Your task to perform on an android device: What is the recent news? Image 0: 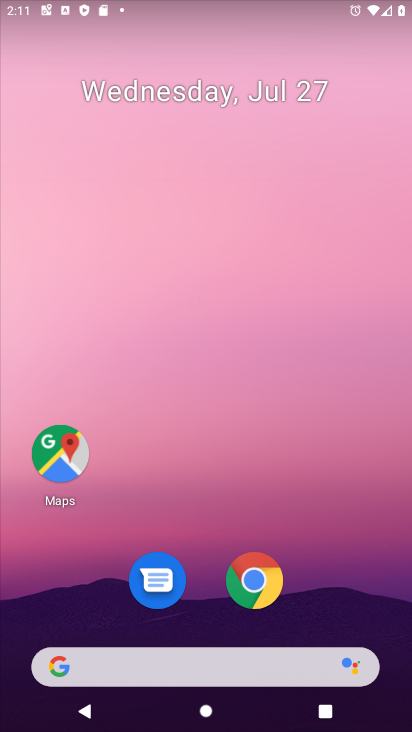
Step 0: drag from (257, 682) to (283, 151)
Your task to perform on an android device: What is the recent news? Image 1: 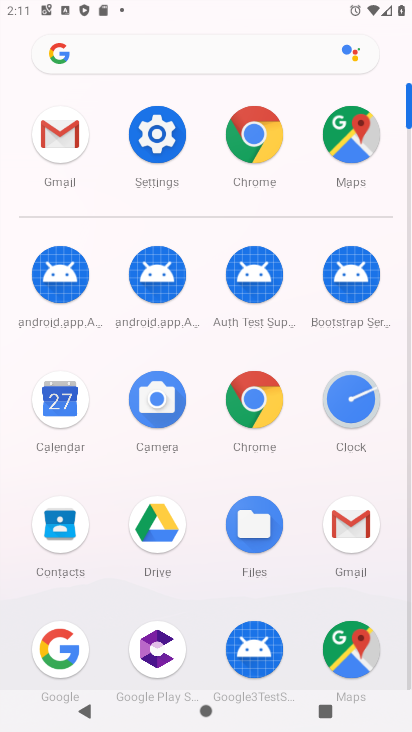
Step 1: click (84, 143)
Your task to perform on an android device: What is the recent news? Image 2: 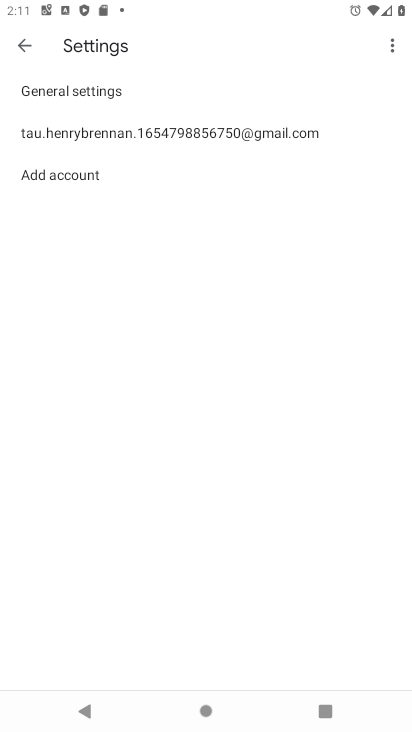
Step 2: click (14, 59)
Your task to perform on an android device: What is the recent news? Image 3: 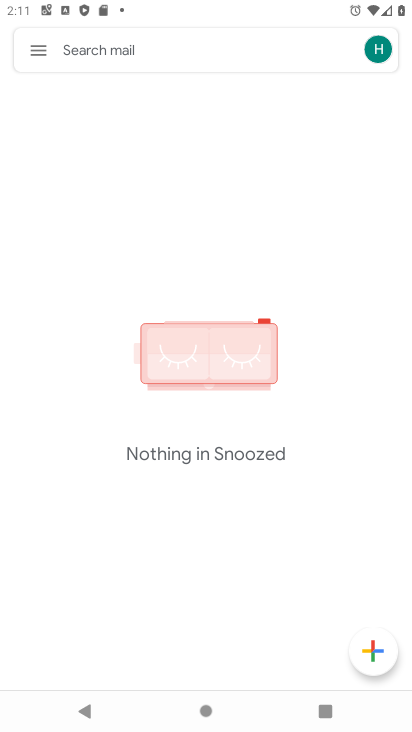
Step 3: press home button
Your task to perform on an android device: What is the recent news? Image 4: 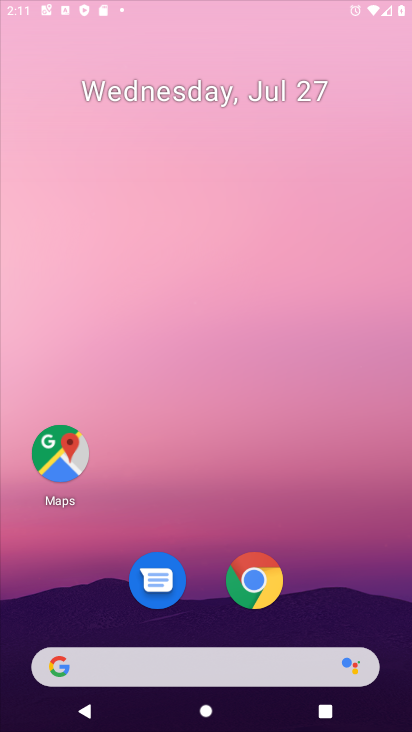
Step 4: click (197, 652)
Your task to perform on an android device: What is the recent news? Image 5: 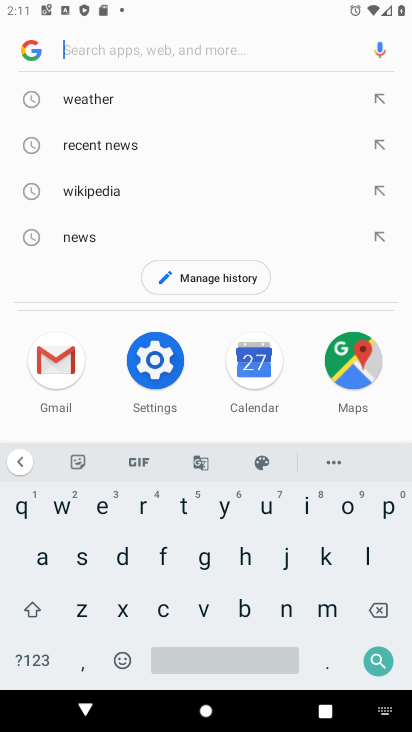
Step 5: click (139, 133)
Your task to perform on an android device: What is the recent news? Image 6: 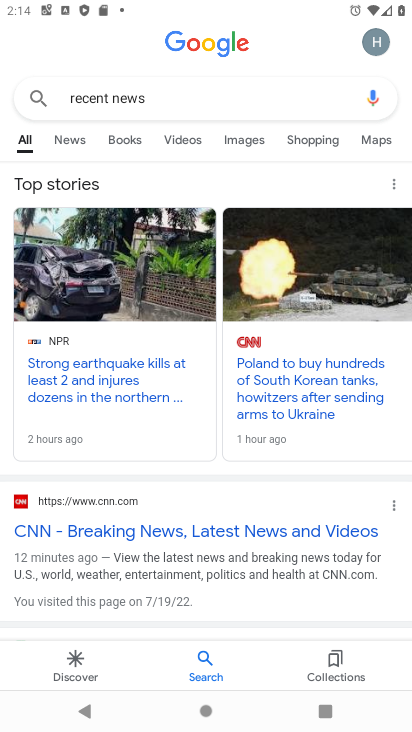
Step 6: task complete